Your task to perform on an android device: empty trash in google photos Image 0: 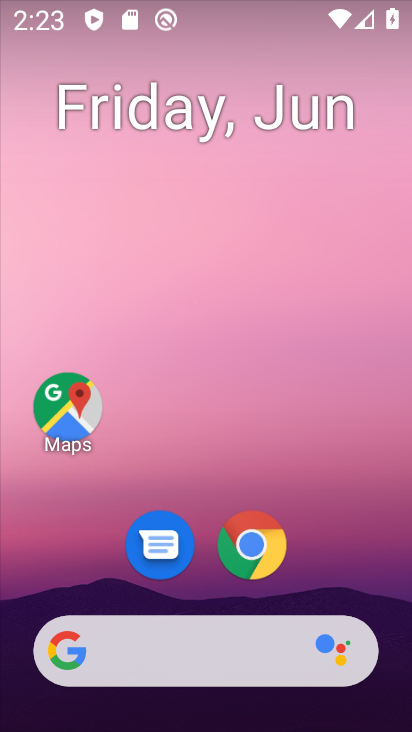
Step 0: drag from (211, 597) to (304, 140)
Your task to perform on an android device: empty trash in google photos Image 1: 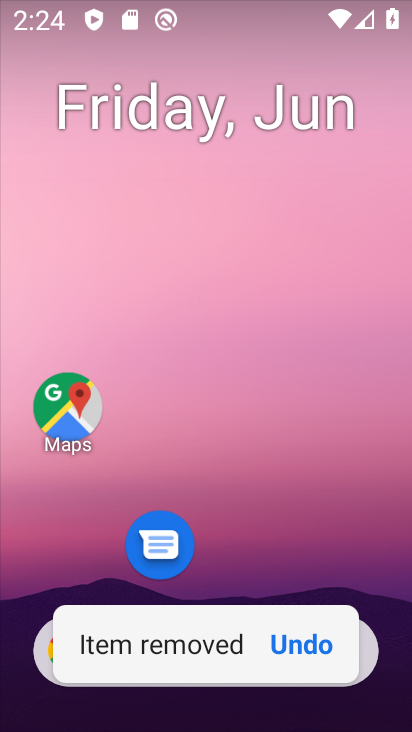
Step 1: drag from (234, 539) to (193, 13)
Your task to perform on an android device: empty trash in google photos Image 2: 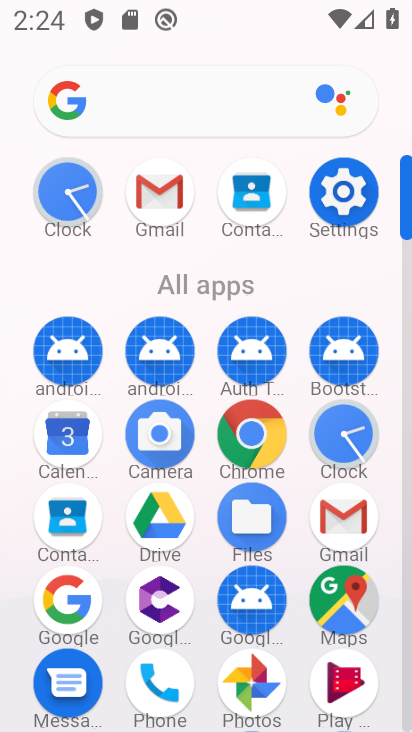
Step 2: drag from (217, 603) to (276, 153)
Your task to perform on an android device: empty trash in google photos Image 3: 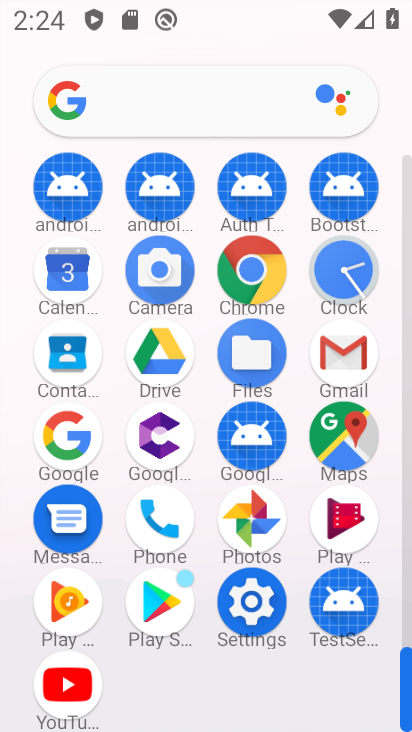
Step 3: click (257, 511)
Your task to perform on an android device: empty trash in google photos Image 4: 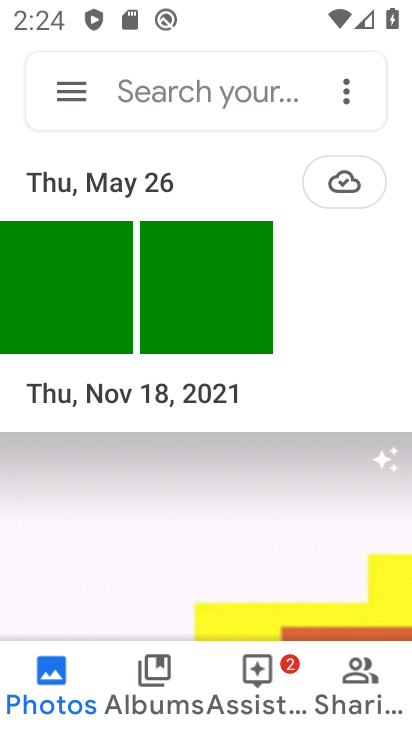
Step 4: click (78, 98)
Your task to perform on an android device: empty trash in google photos Image 5: 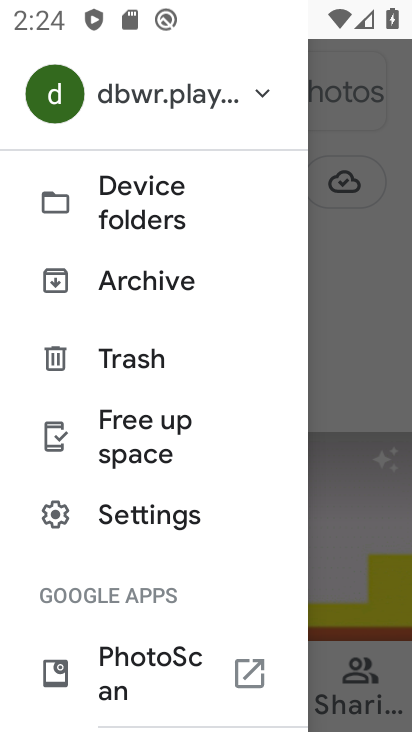
Step 5: click (126, 353)
Your task to perform on an android device: empty trash in google photos Image 6: 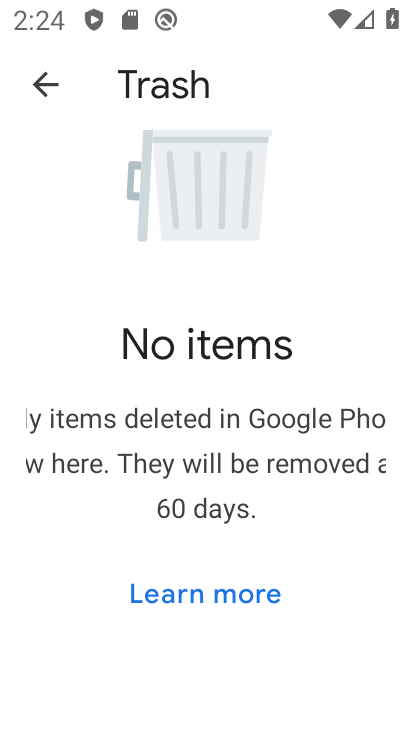
Step 6: task complete